Your task to perform on an android device: set default search engine in the chrome app Image 0: 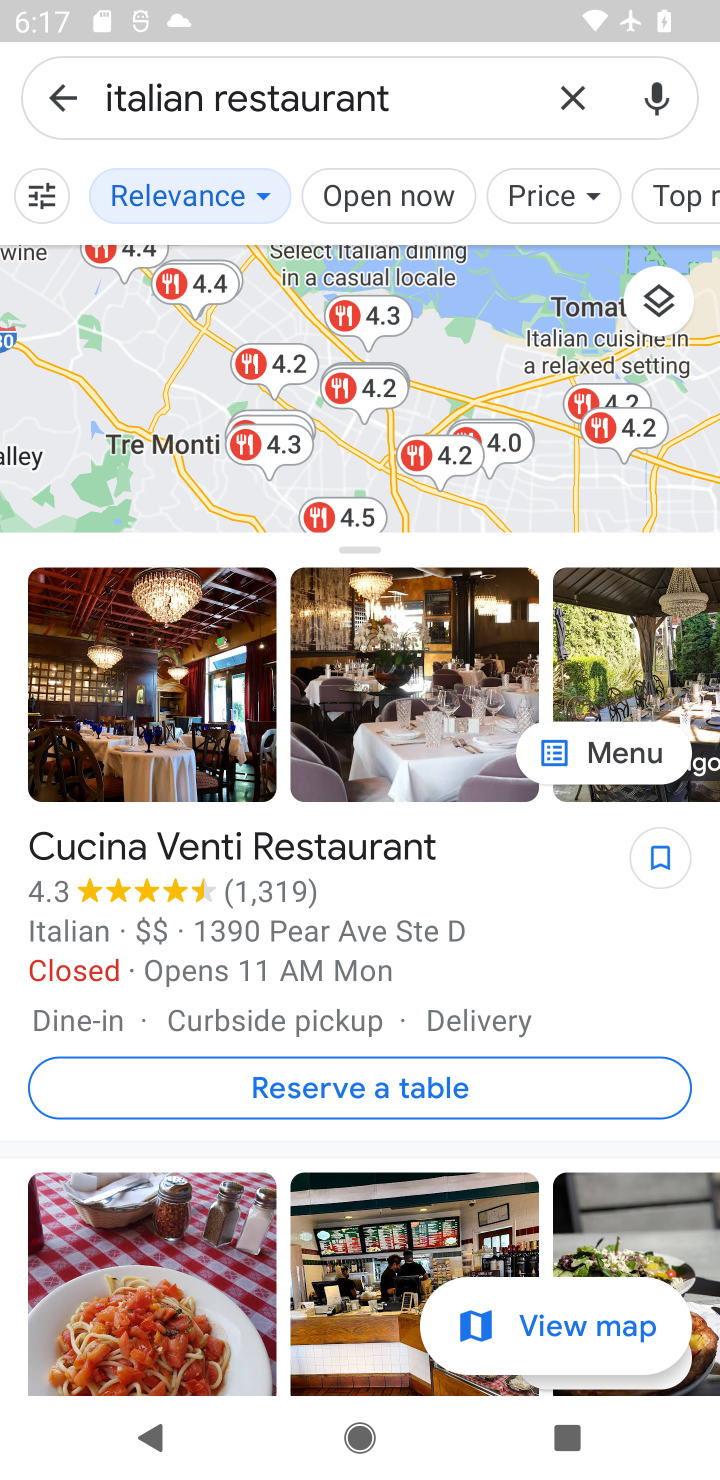
Step 0: press home button
Your task to perform on an android device: set default search engine in the chrome app Image 1: 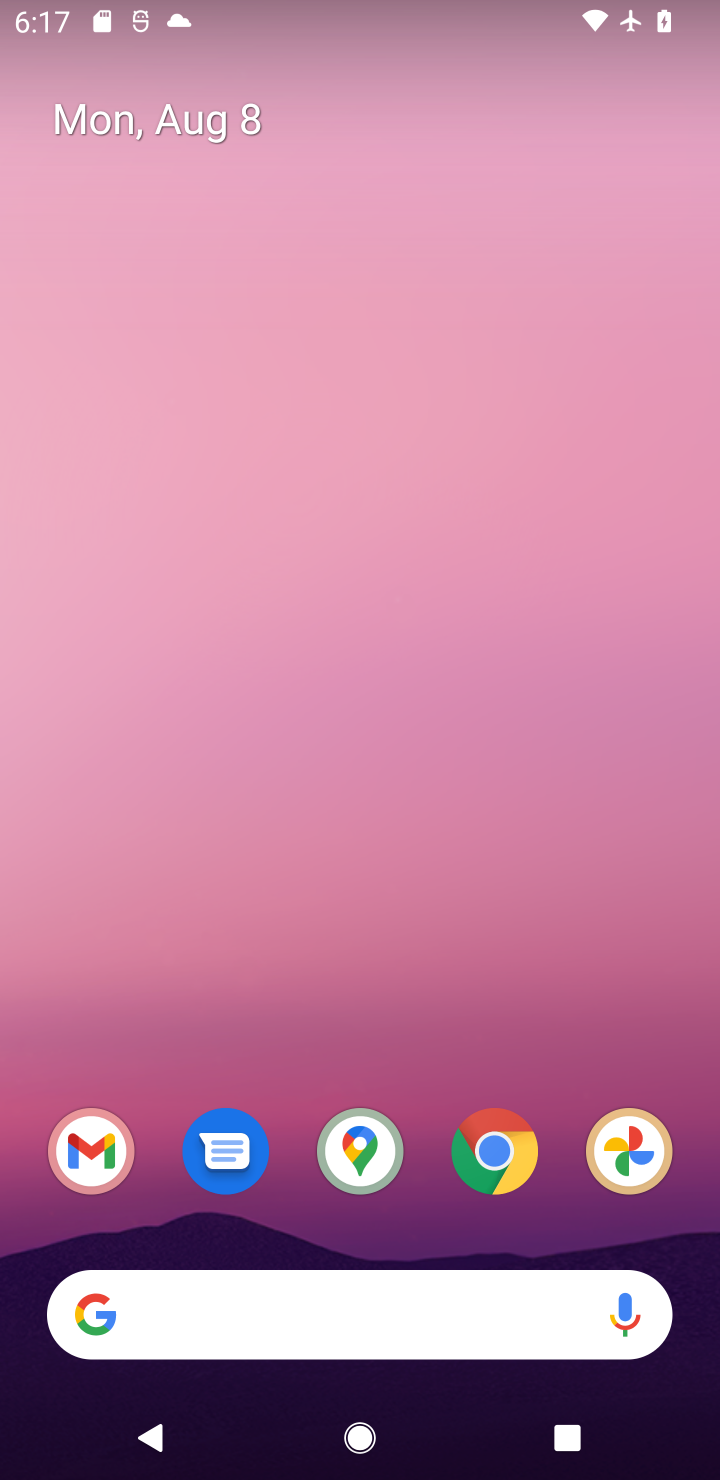
Step 1: click (495, 1132)
Your task to perform on an android device: set default search engine in the chrome app Image 2: 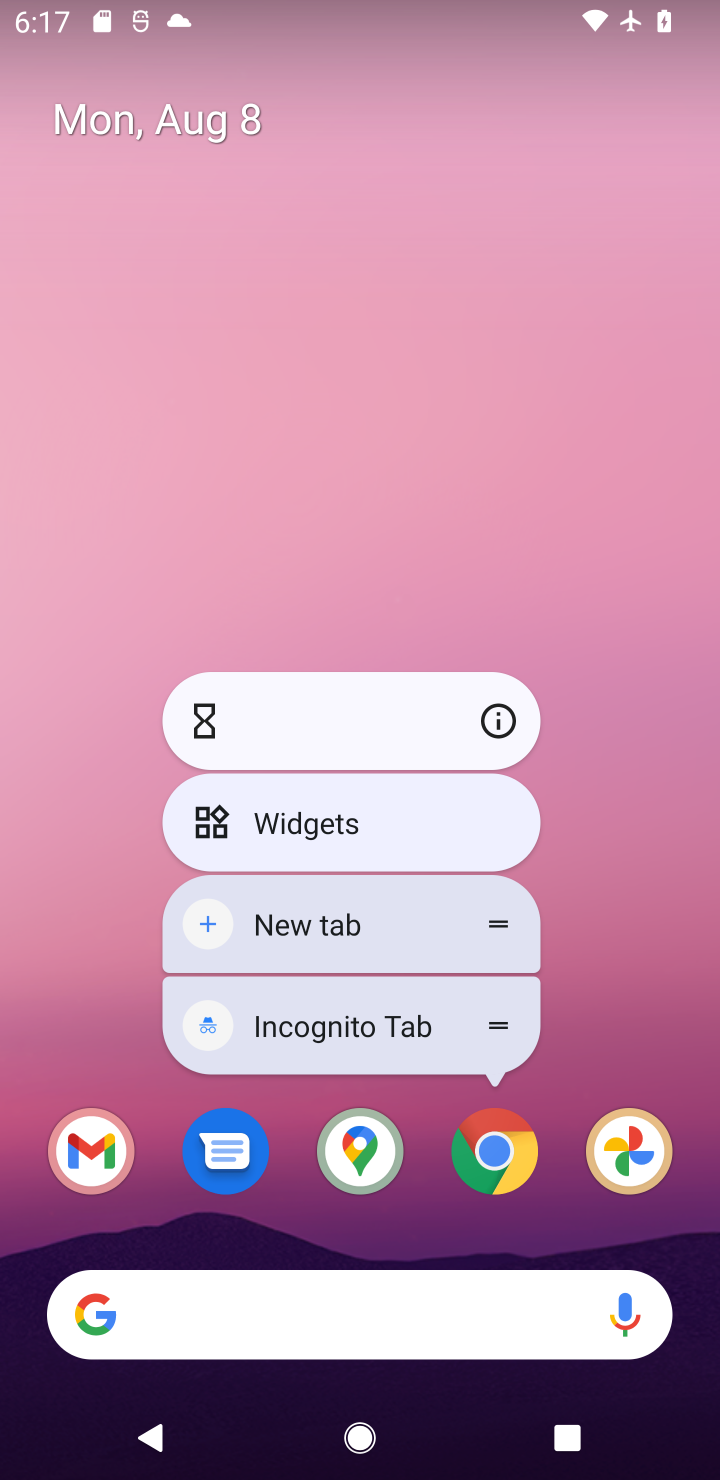
Step 2: click (495, 1132)
Your task to perform on an android device: set default search engine in the chrome app Image 3: 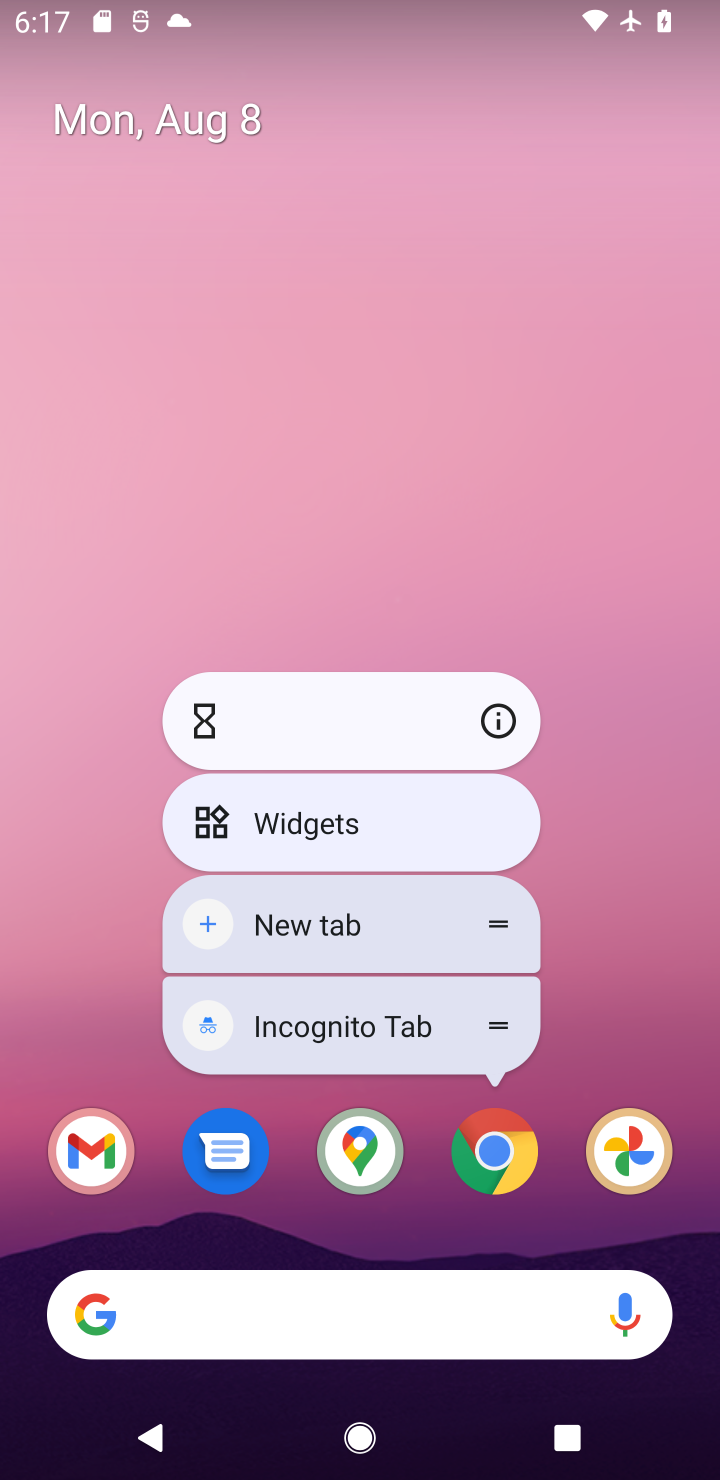
Step 3: click (495, 1132)
Your task to perform on an android device: set default search engine in the chrome app Image 4: 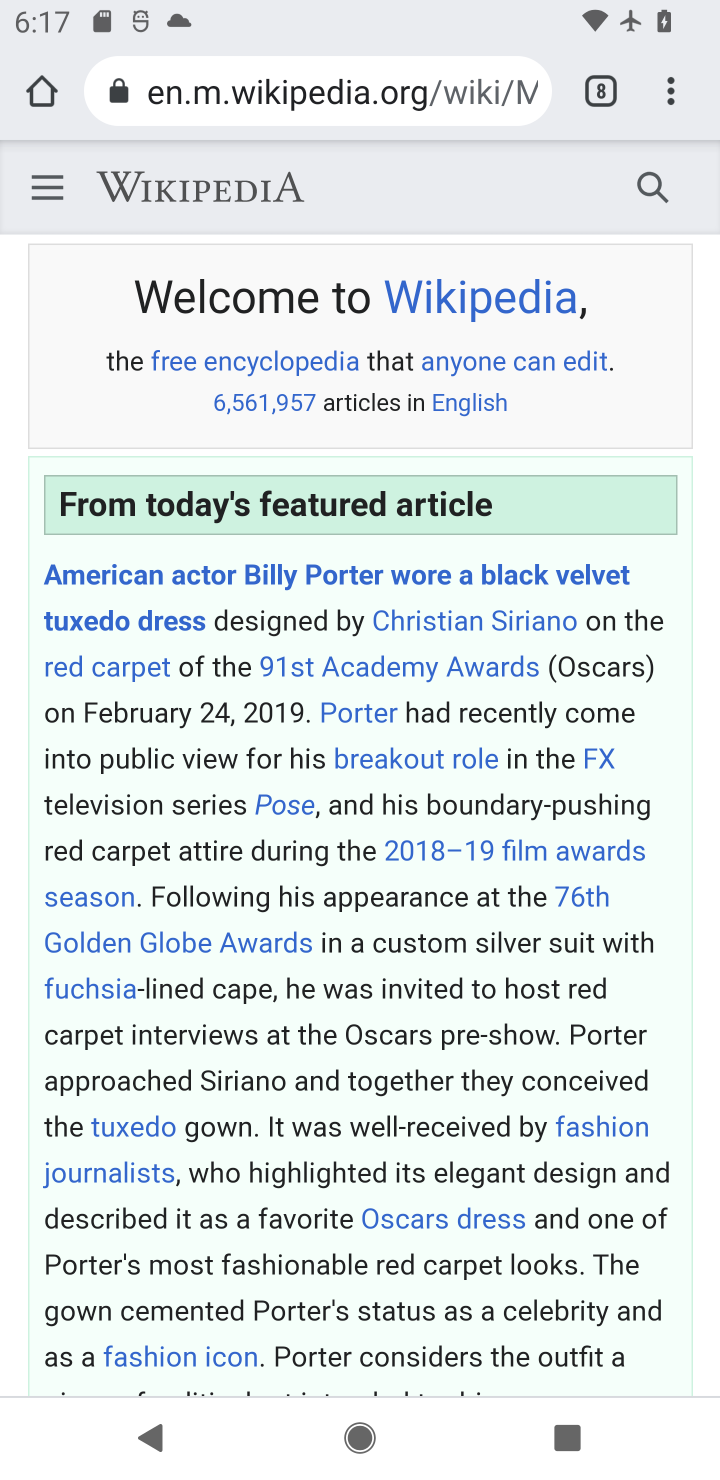
Step 4: click (673, 109)
Your task to perform on an android device: set default search engine in the chrome app Image 5: 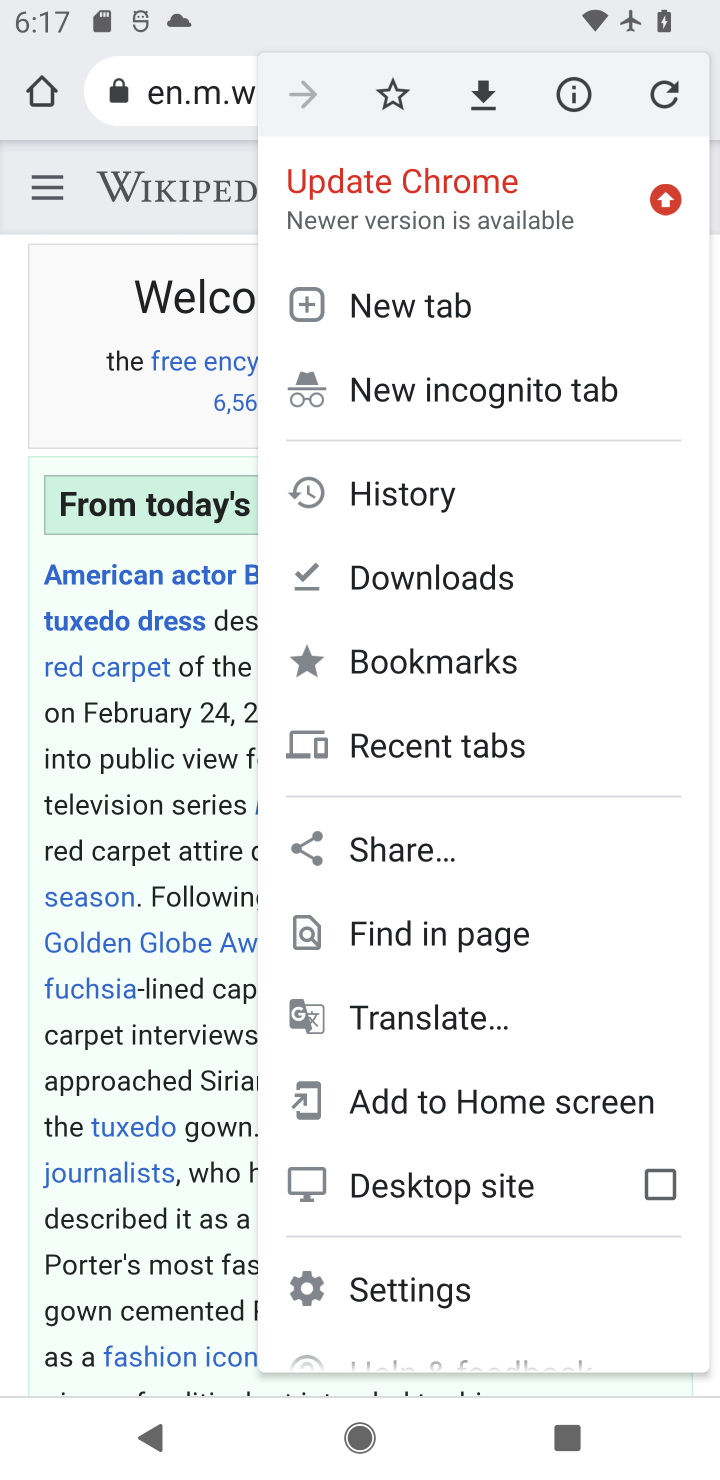
Step 5: click (413, 1270)
Your task to perform on an android device: set default search engine in the chrome app Image 6: 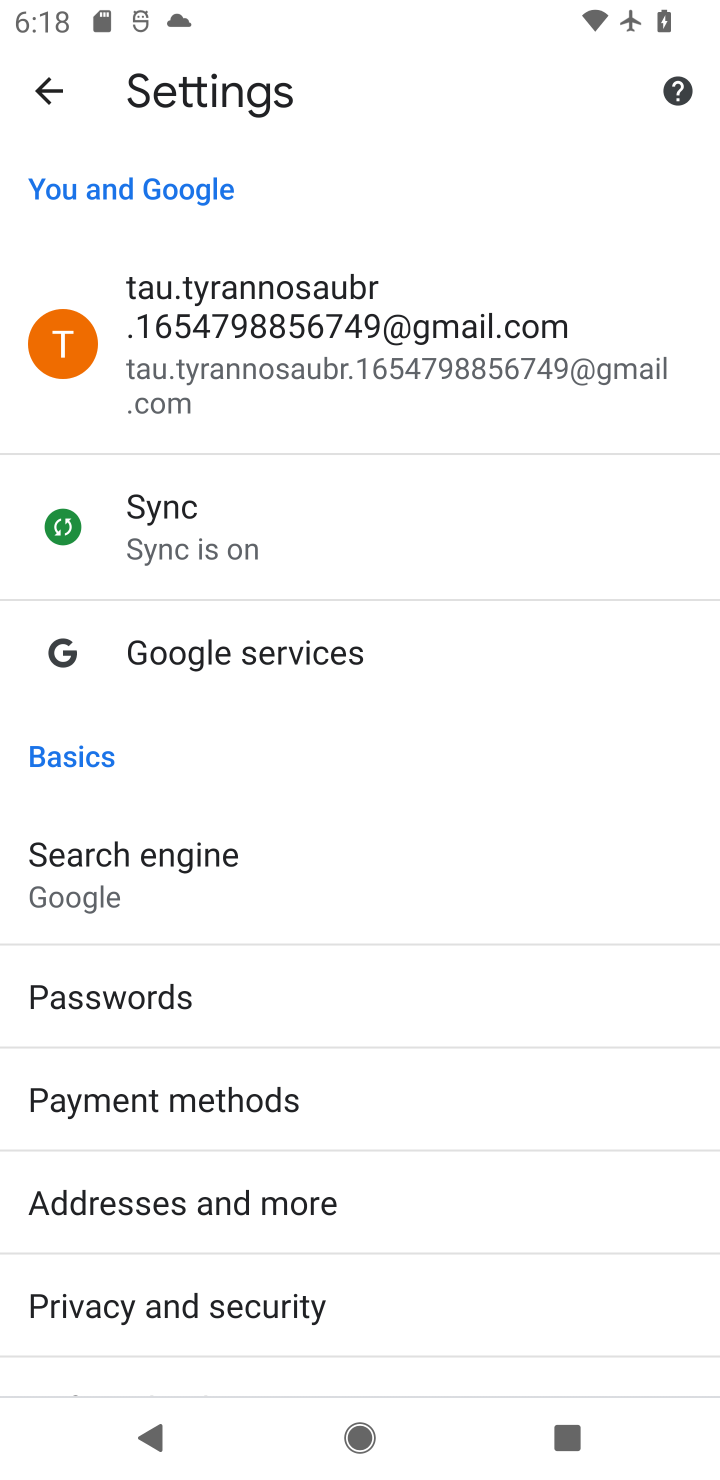
Step 6: click (370, 883)
Your task to perform on an android device: set default search engine in the chrome app Image 7: 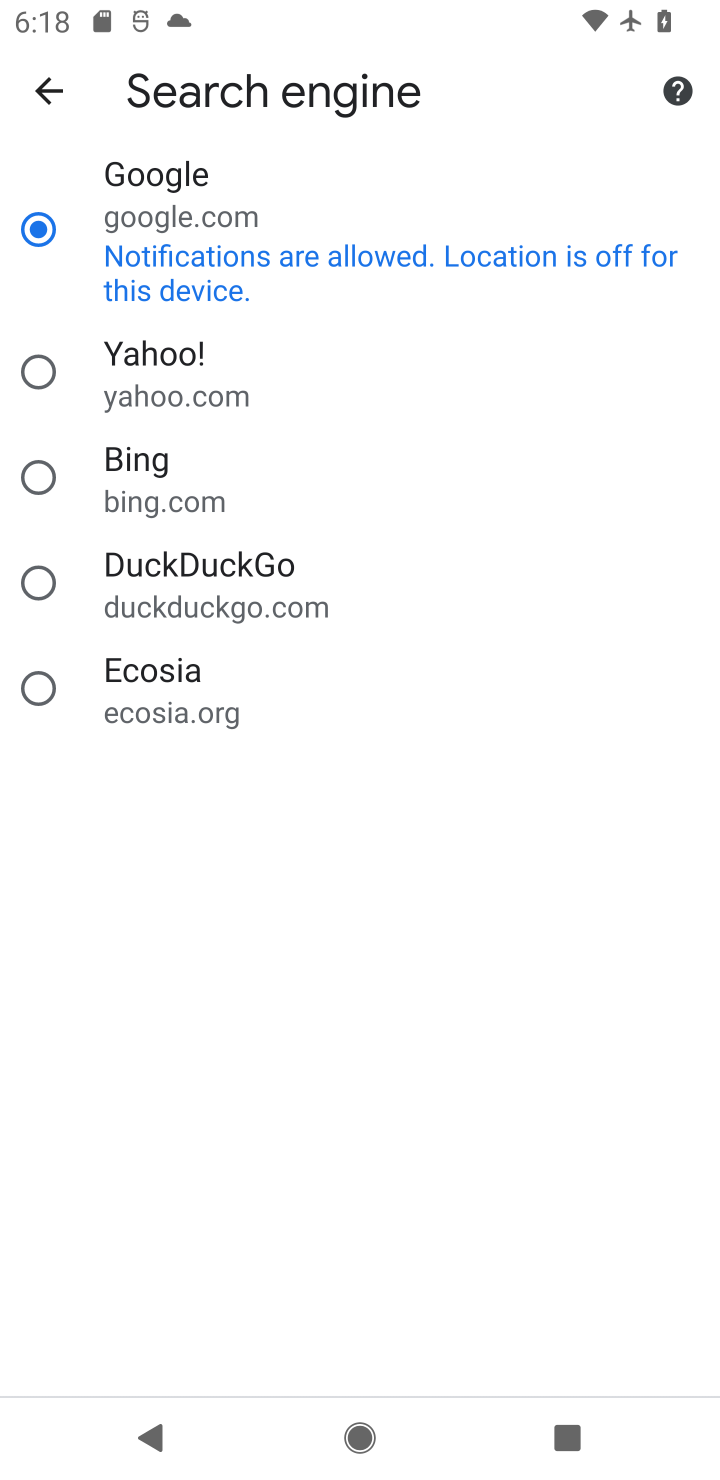
Step 7: task complete